Your task to perform on an android device: Open privacy settings Image 0: 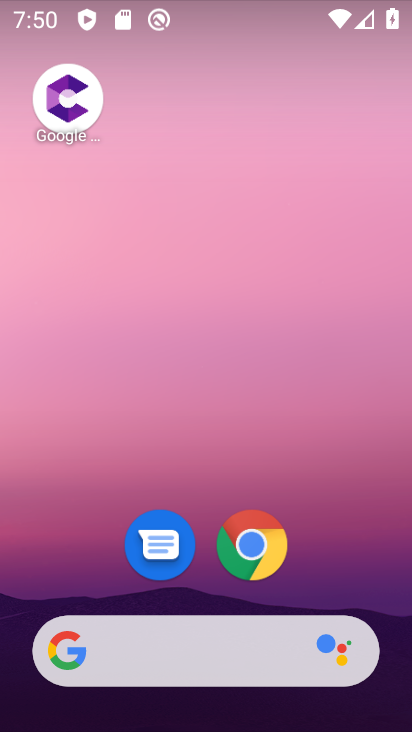
Step 0: drag from (313, 574) to (277, 231)
Your task to perform on an android device: Open privacy settings Image 1: 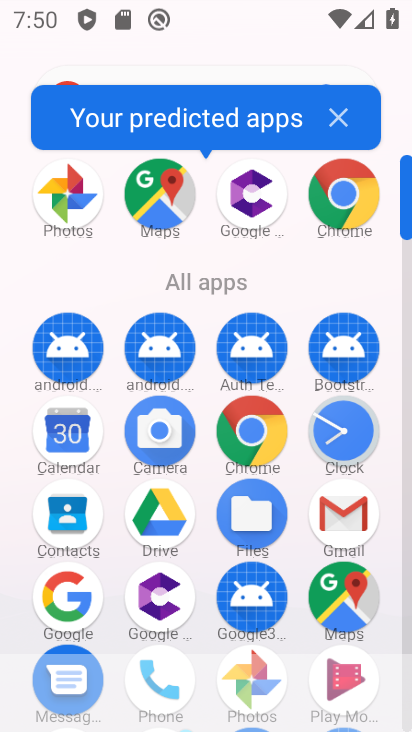
Step 1: drag from (201, 578) to (176, 247)
Your task to perform on an android device: Open privacy settings Image 2: 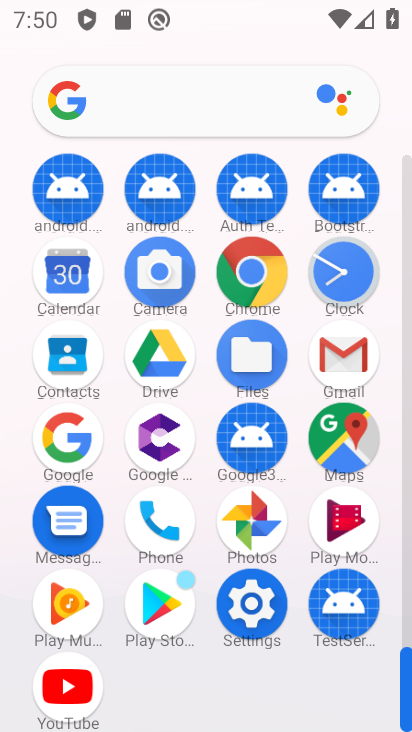
Step 2: click (250, 602)
Your task to perform on an android device: Open privacy settings Image 3: 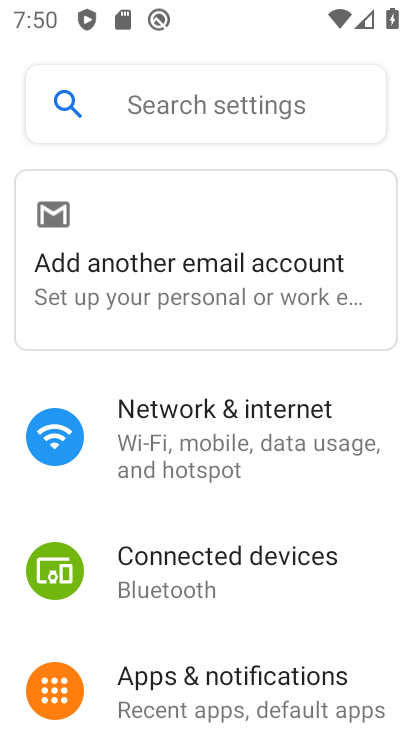
Step 3: drag from (283, 656) to (240, 317)
Your task to perform on an android device: Open privacy settings Image 4: 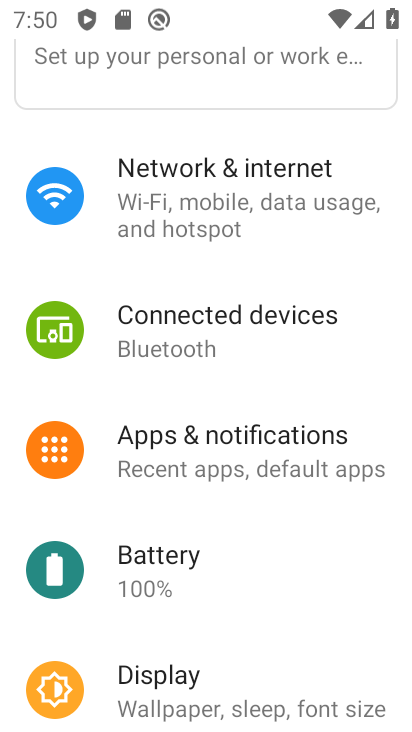
Step 4: drag from (189, 654) to (186, 208)
Your task to perform on an android device: Open privacy settings Image 5: 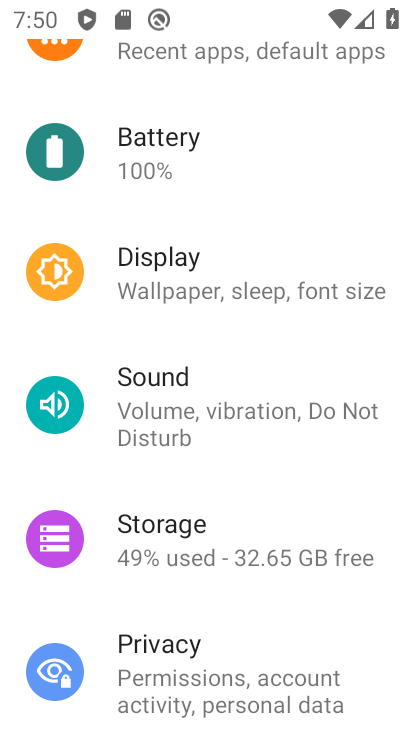
Step 5: click (192, 663)
Your task to perform on an android device: Open privacy settings Image 6: 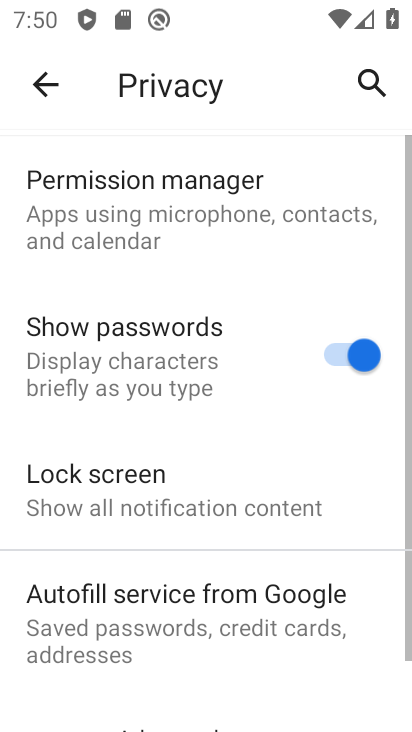
Step 6: task complete